Your task to perform on an android device: change notification settings in the gmail app Image 0: 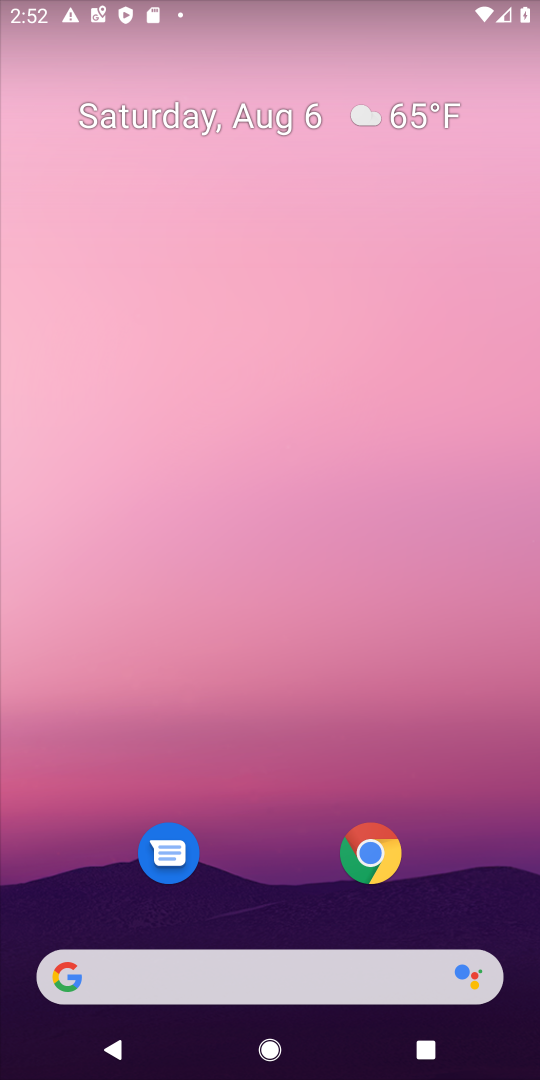
Step 0: drag from (249, 898) to (373, 64)
Your task to perform on an android device: change notification settings in the gmail app Image 1: 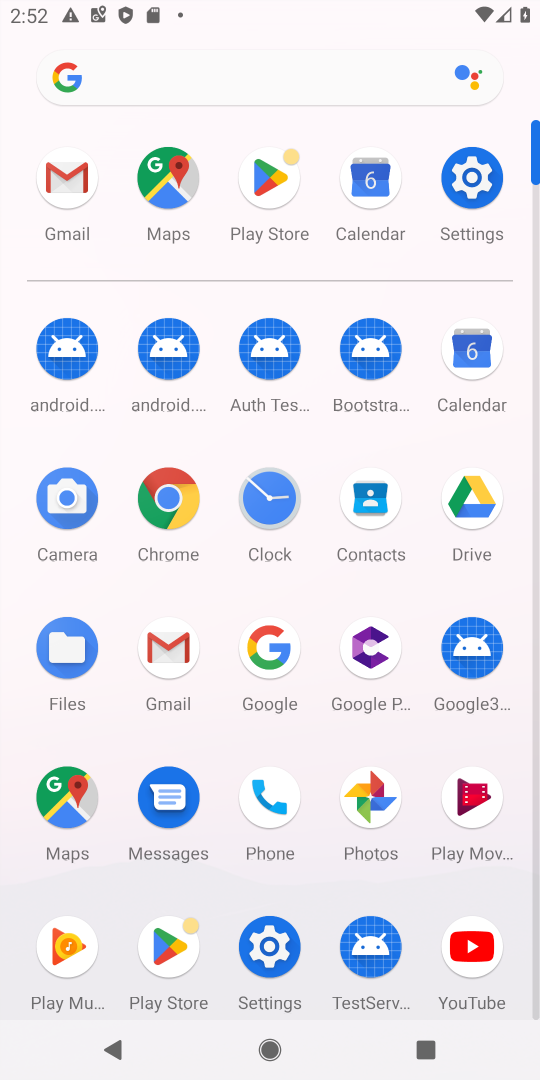
Step 1: click (74, 185)
Your task to perform on an android device: change notification settings in the gmail app Image 2: 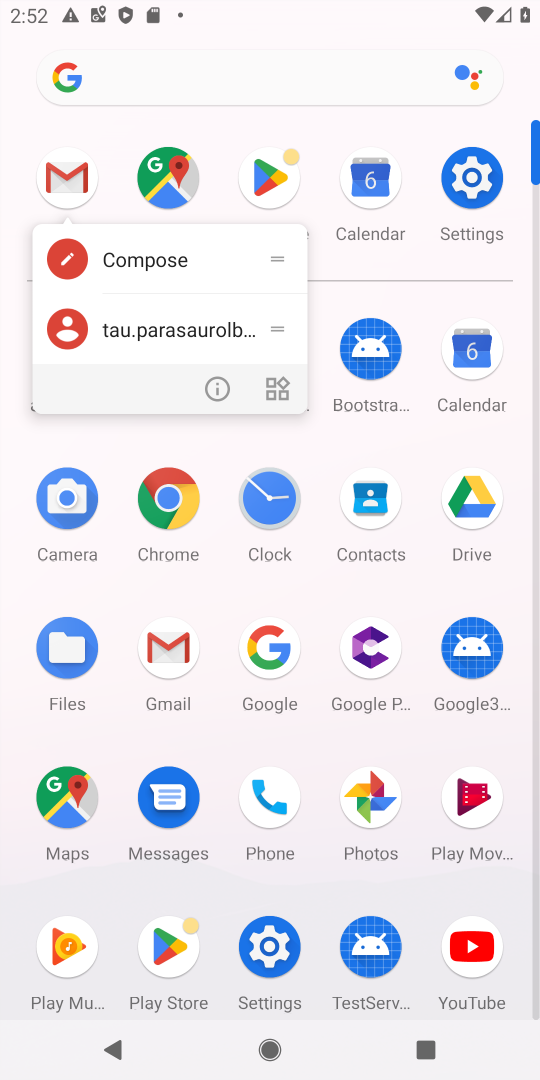
Step 2: click (226, 387)
Your task to perform on an android device: change notification settings in the gmail app Image 3: 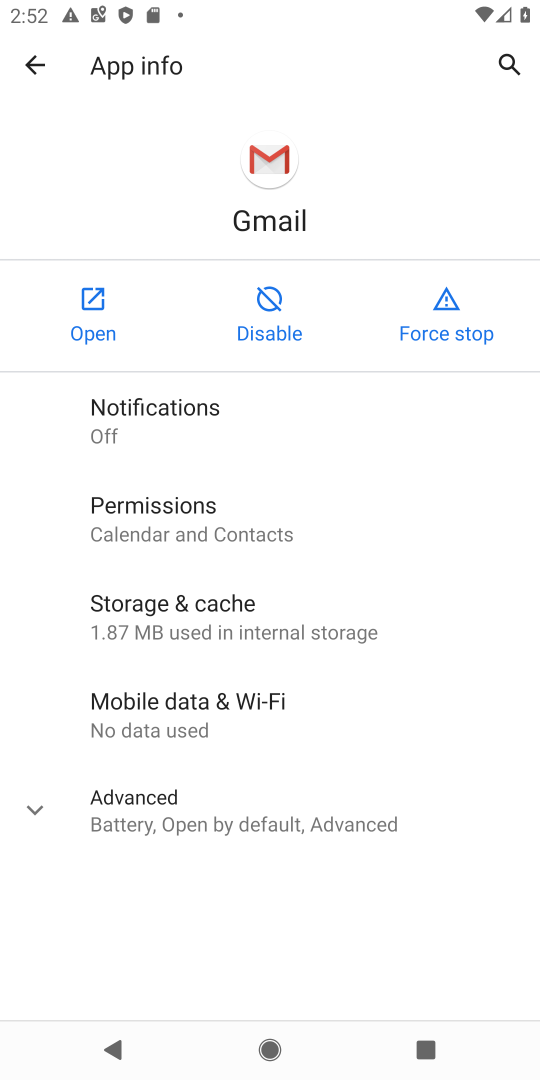
Step 3: click (193, 413)
Your task to perform on an android device: change notification settings in the gmail app Image 4: 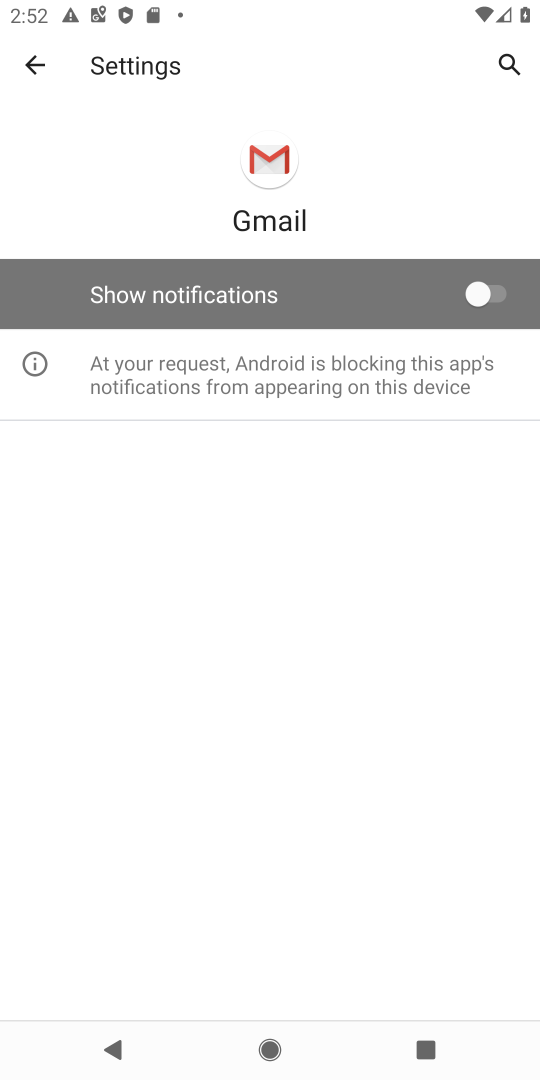
Step 4: click (494, 293)
Your task to perform on an android device: change notification settings in the gmail app Image 5: 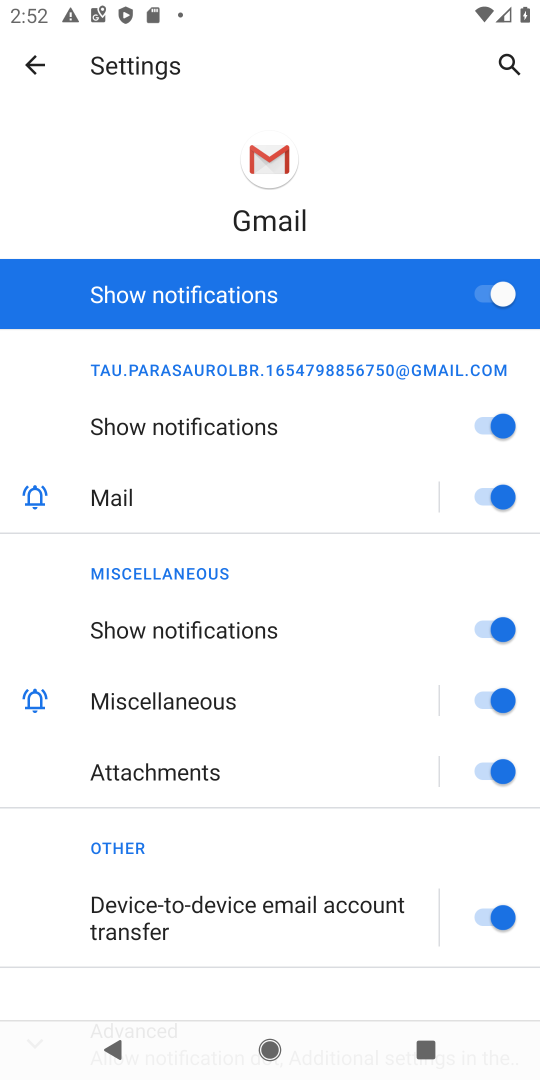
Step 5: task complete